Your task to perform on an android device: Open Amazon Image 0: 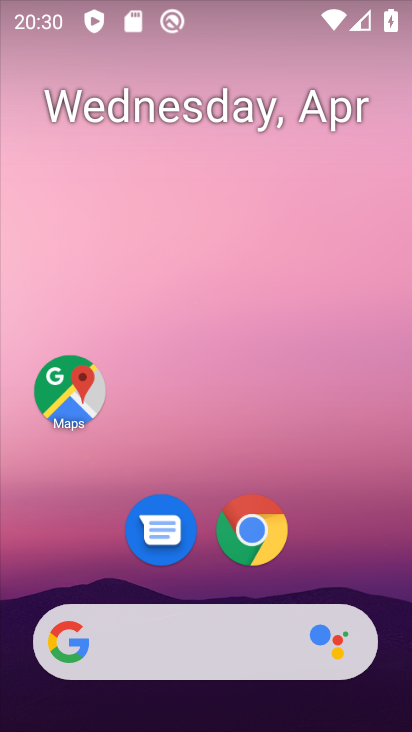
Step 0: drag from (358, 557) to (274, 98)
Your task to perform on an android device: Open Amazon Image 1: 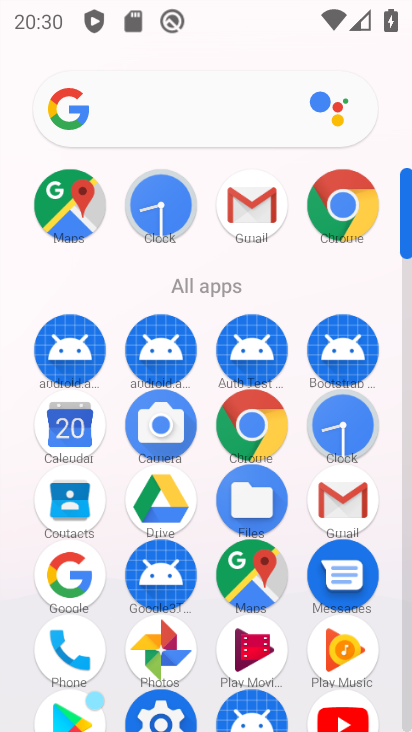
Step 1: click (358, 200)
Your task to perform on an android device: Open Amazon Image 2: 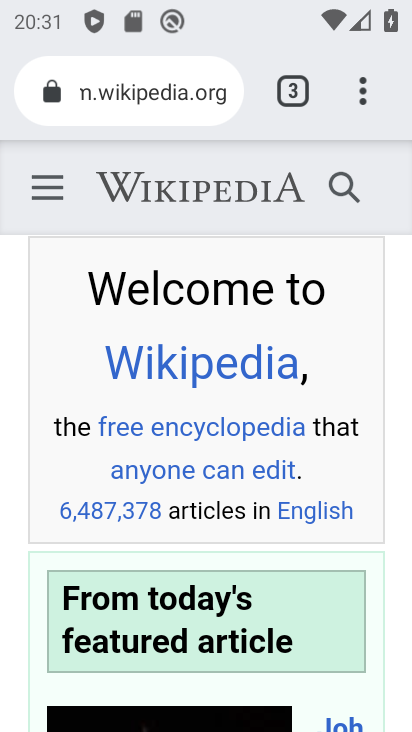
Step 2: click (297, 101)
Your task to perform on an android device: Open Amazon Image 3: 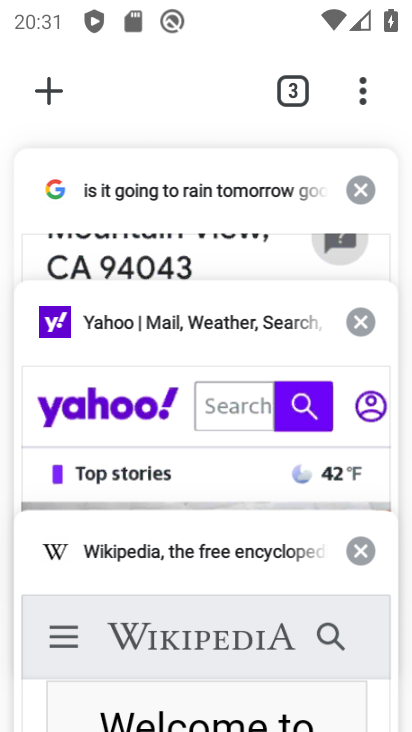
Step 3: click (57, 91)
Your task to perform on an android device: Open Amazon Image 4: 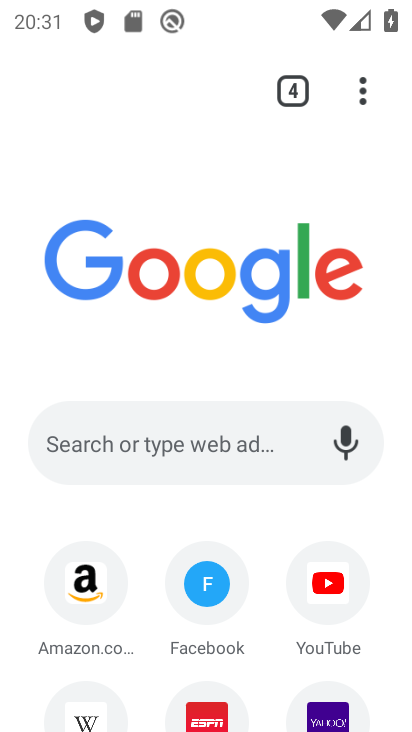
Step 4: click (76, 586)
Your task to perform on an android device: Open Amazon Image 5: 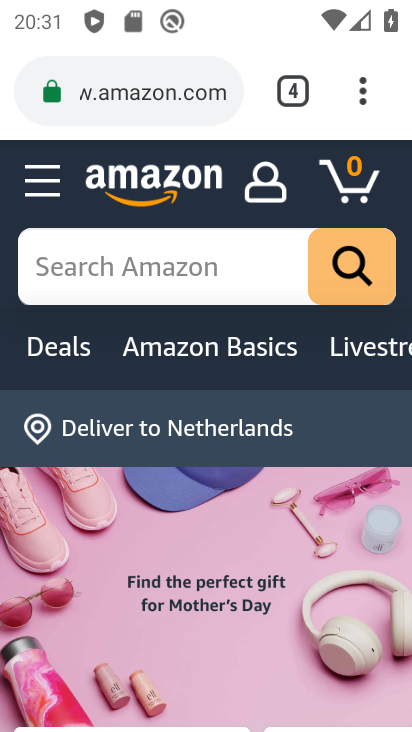
Step 5: task complete